Your task to perform on an android device: delete browsing data in the chrome app Image 0: 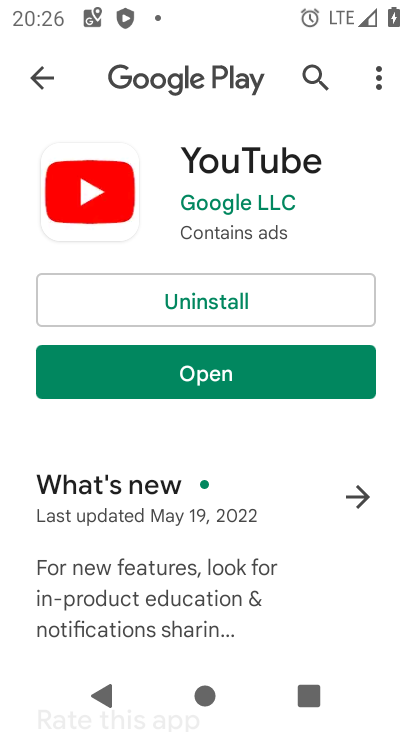
Step 0: press home button
Your task to perform on an android device: delete browsing data in the chrome app Image 1: 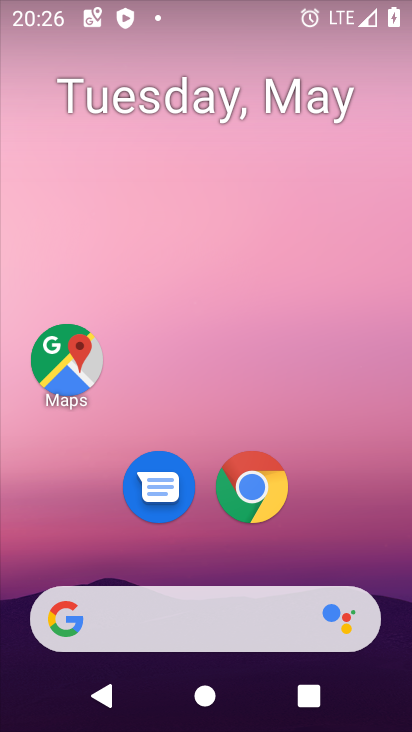
Step 1: click (253, 487)
Your task to perform on an android device: delete browsing data in the chrome app Image 2: 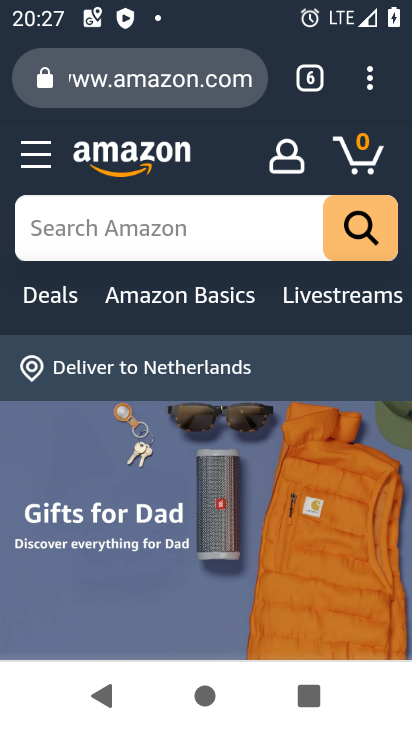
Step 2: click (374, 74)
Your task to perform on an android device: delete browsing data in the chrome app Image 3: 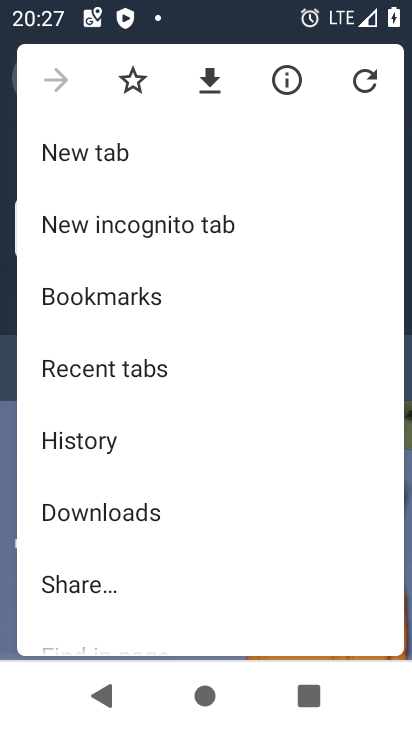
Step 3: click (87, 434)
Your task to perform on an android device: delete browsing data in the chrome app Image 4: 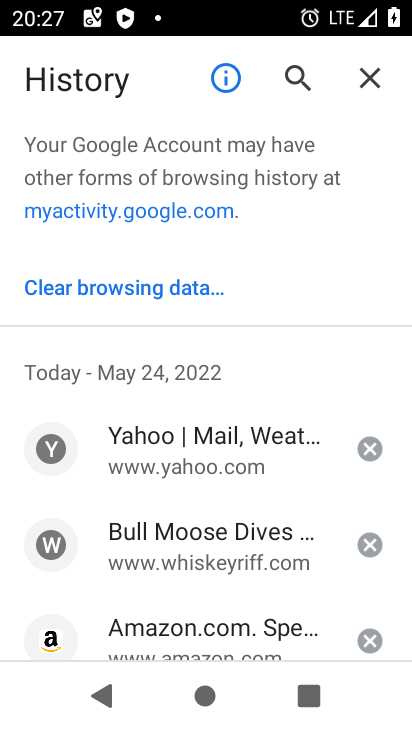
Step 4: click (105, 286)
Your task to perform on an android device: delete browsing data in the chrome app Image 5: 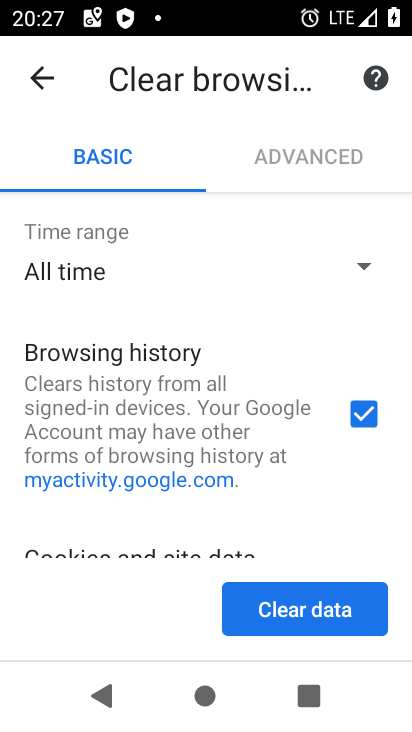
Step 5: click (326, 605)
Your task to perform on an android device: delete browsing data in the chrome app Image 6: 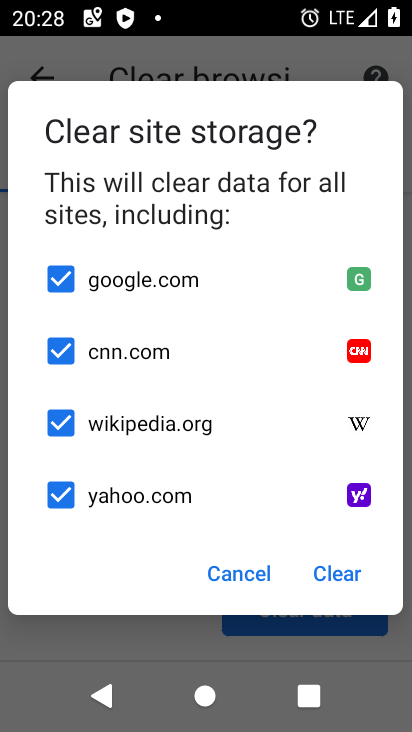
Step 6: click (349, 569)
Your task to perform on an android device: delete browsing data in the chrome app Image 7: 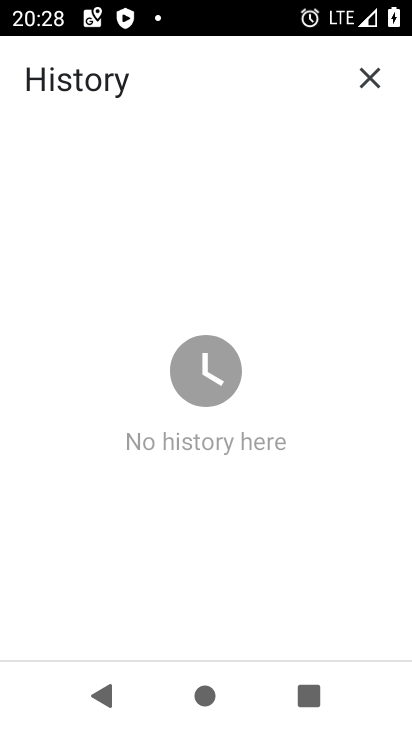
Step 7: task complete